Your task to perform on an android device: turn on wifi Image 0: 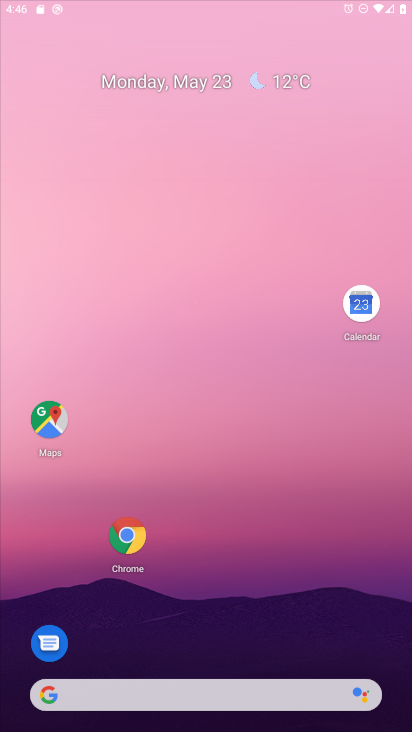
Step 0: click (177, 169)
Your task to perform on an android device: turn on wifi Image 1: 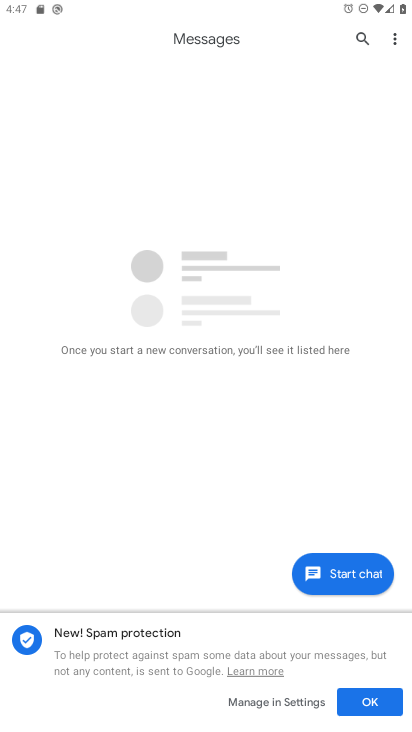
Step 1: press home button
Your task to perform on an android device: turn on wifi Image 2: 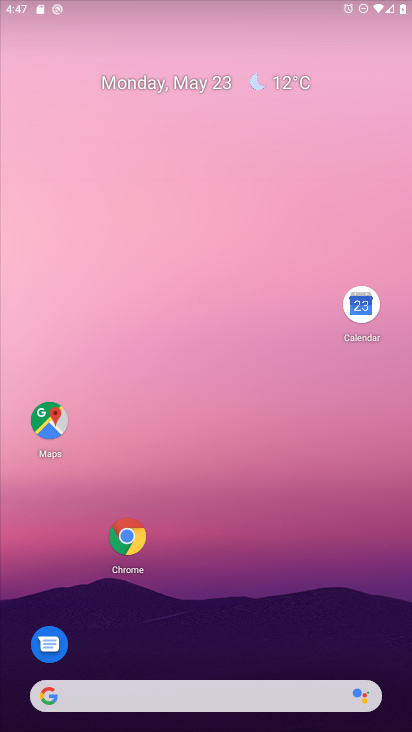
Step 2: drag from (268, 528) to (257, 165)
Your task to perform on an android device: turn on wifi Image 3: 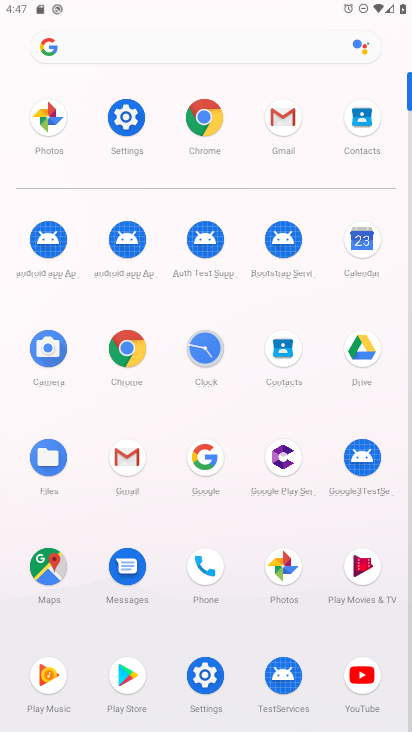
Step 3: click (127, 122)
Your task to perform on an android device: turn on wifi Image 4: 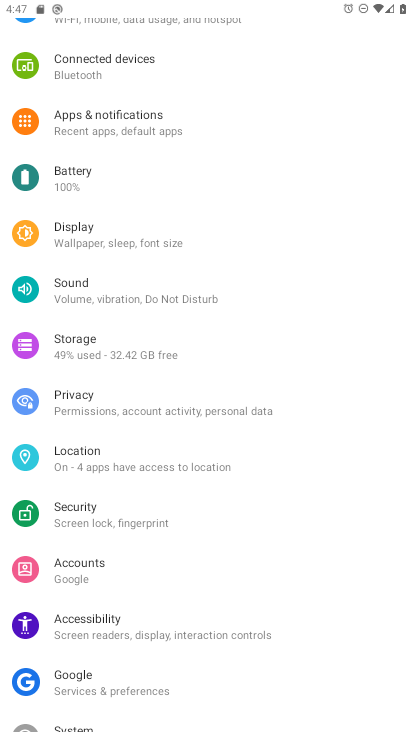
Step 4: drag from (211, 104) to (188, 541)
Your task to perform on an android device: turn on wifi Image 5: 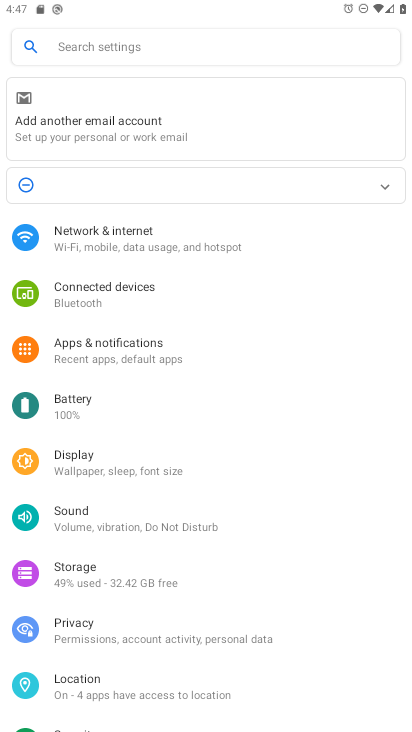
Step 5: click (88, 233)
Your task to perform on an android device: turn on wifi Image 6: 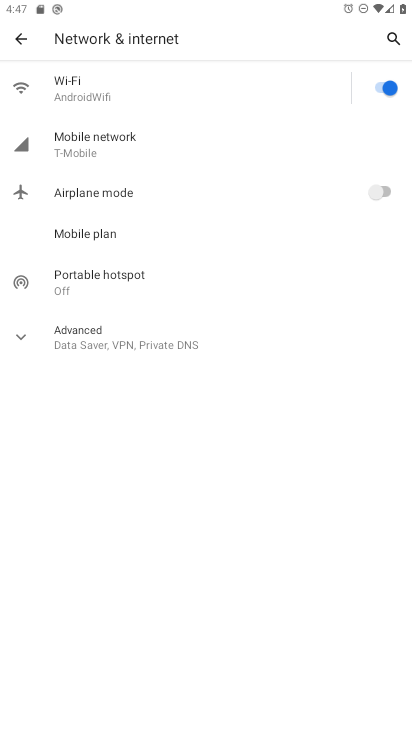
Step 6: click (188, 90)
Your task to perform on an android device: turn on wifi Image 7: 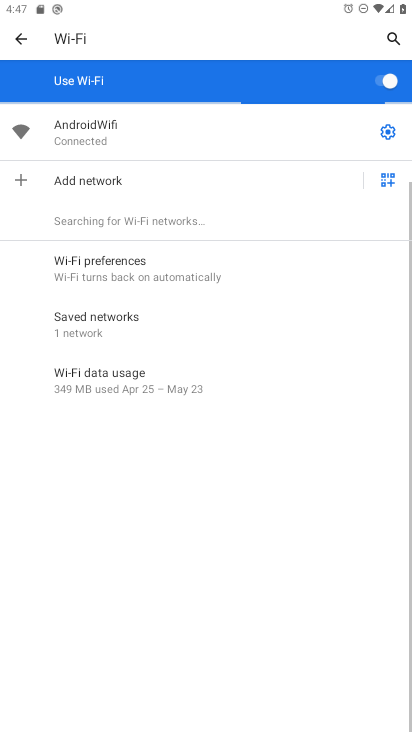
Step 7: task complete